Your task to perform on an android device: turn off notifications settings in the gmail app Image 0: 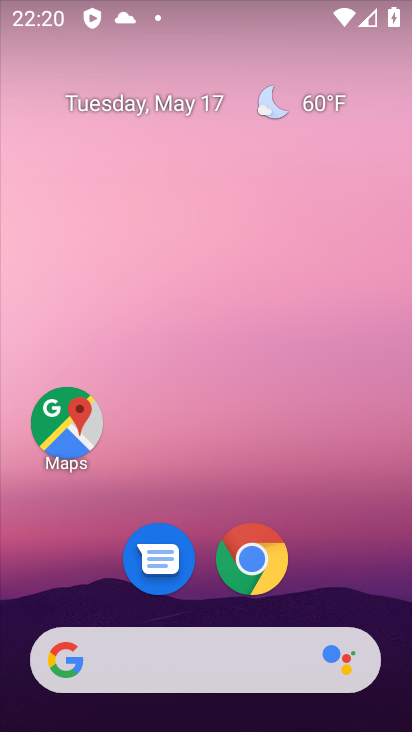
Step 0: drag from (347, 535) to (314, 138)
Your task to perform on an android device: turn off notifications settings in the gmail app Image 1: 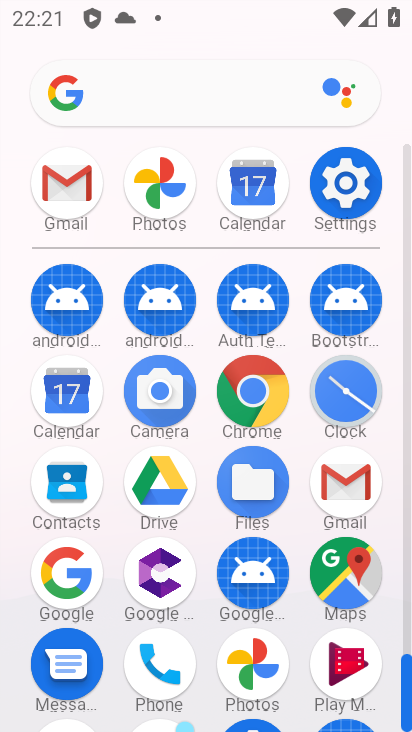
Step 1: click (75, 177)
Your task to perform on an android device: turn off notifications settings in the gmail app Image 2: 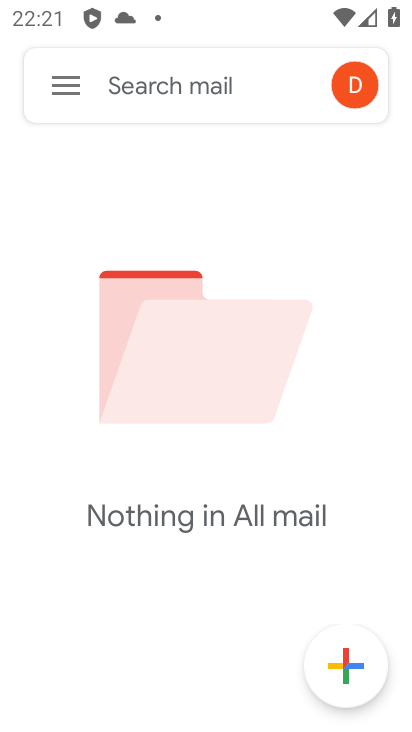
Step 2: click (65, 95)
Your task to perform on an android device: turn off notifications settings in the gmail app Image 3: 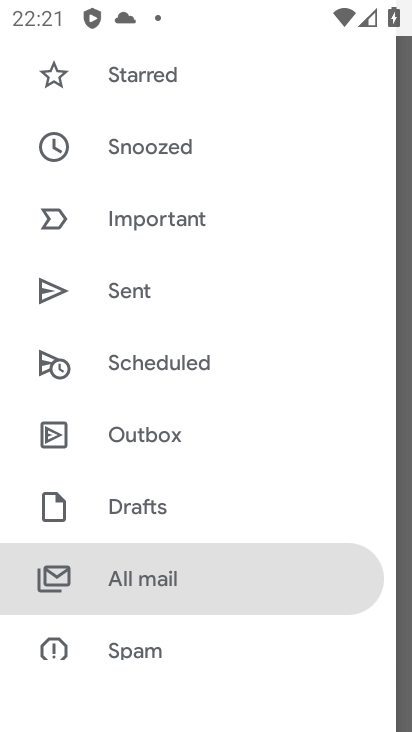
Step 3: drag from (152, 592) to (214, 242)
Your task to perform on an android device: turn off notifications settings in the gmail app Image 4: 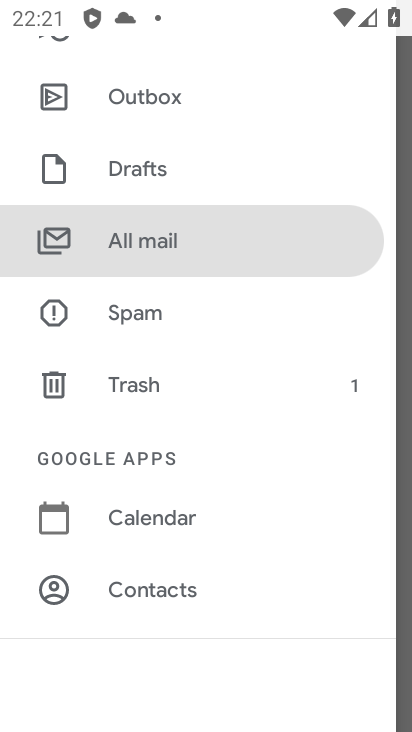
Step 4: drag from (141, 591) to (271, 342)
Your task to perform on an android device: turn off notifications settings in the gmail app Image 5: 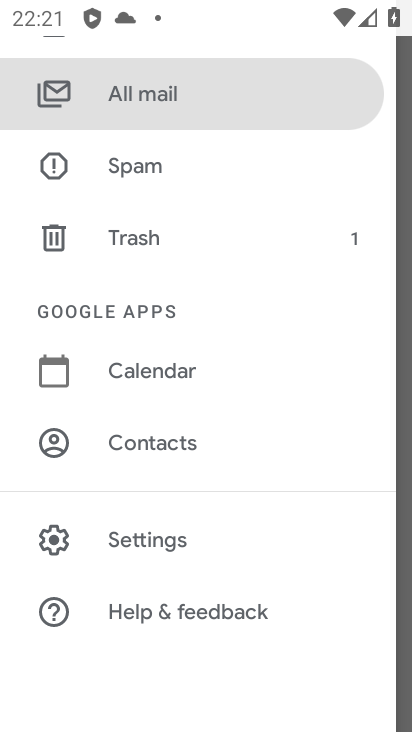
Step 5: click (127, 529)
Your task to perform on an android device: turn off notifications settings in the gmail app Image 6: 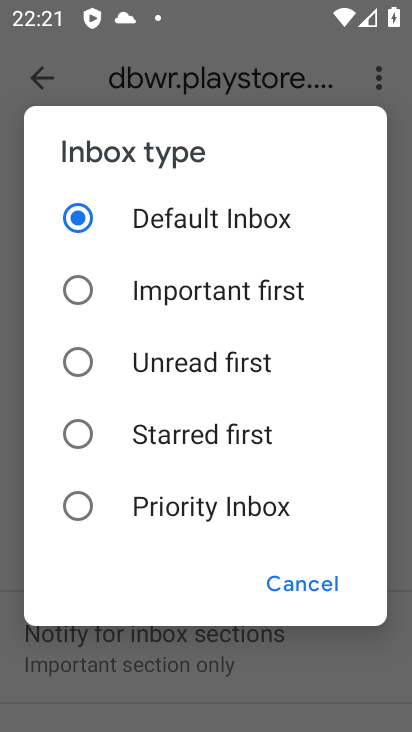
Step 6: click (302, 593)
Your task to perform on an android device: turn off notifications settings in the gmail app Image 7: 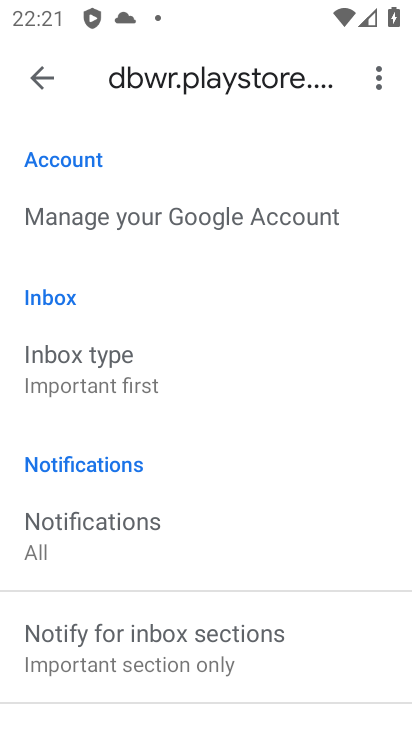
Step 7: drag from (258, 526) to (304, 128)
Your task to perform on an android device: turn off notifications settings in the gmail app Image 8: 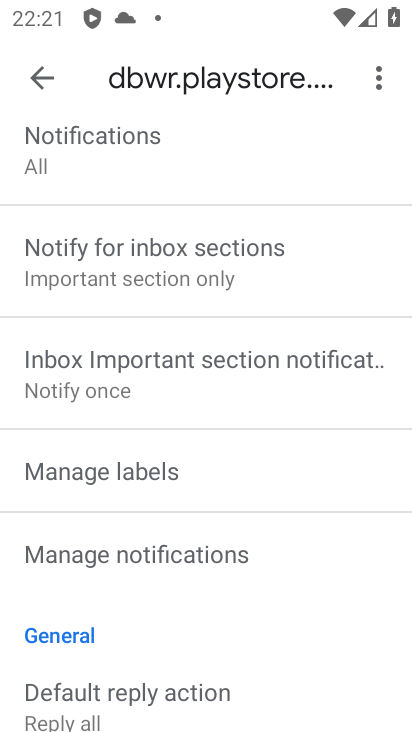
Step 8: click (153, 556)
Your task to perform on an android device: turn off notifications settings in the gmail app Image 9: 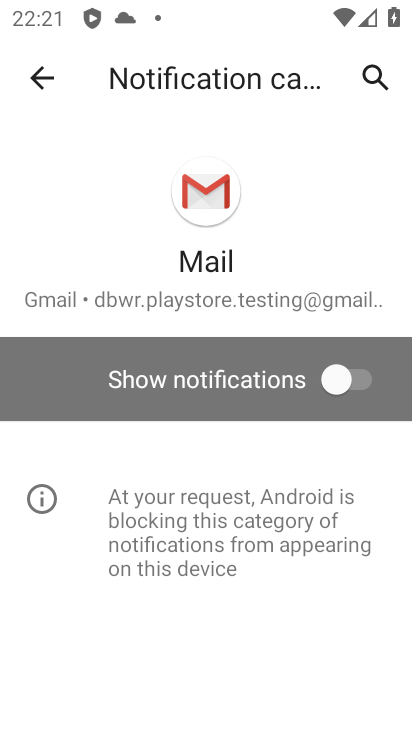
Step 9: task complete